Your task to perform on an android device: Open Google Maps and go to "Timeline" Image 0: 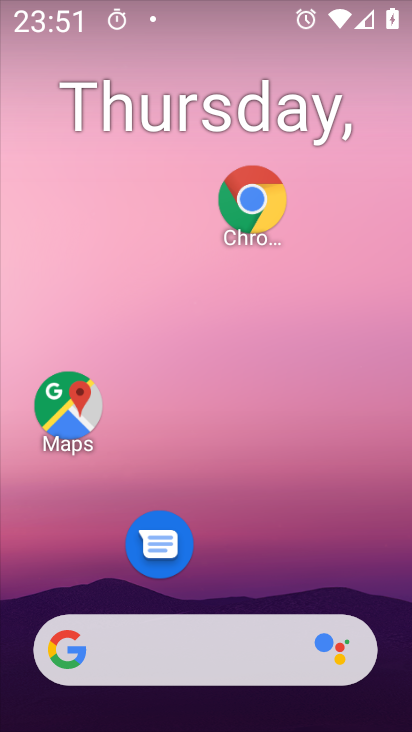
Step 0: click (71, 398)
Your task to perform on an android device: Open Google Maps and go to "Timeline" Image 1: 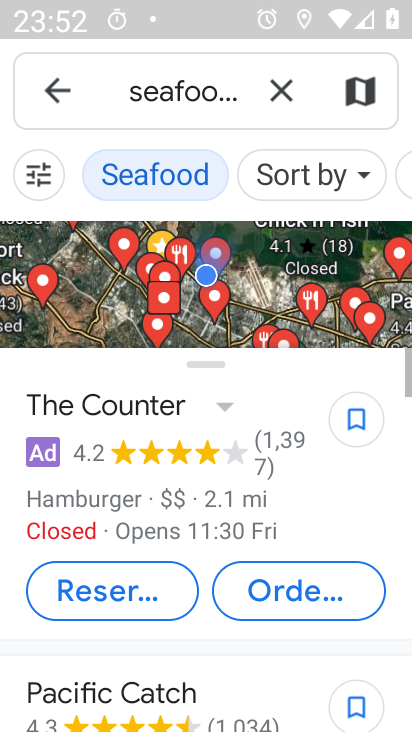
Step 1: click (57, 105)
Your task to perform on an android device: Open Google Maps and go to "Timeline" Image 2: 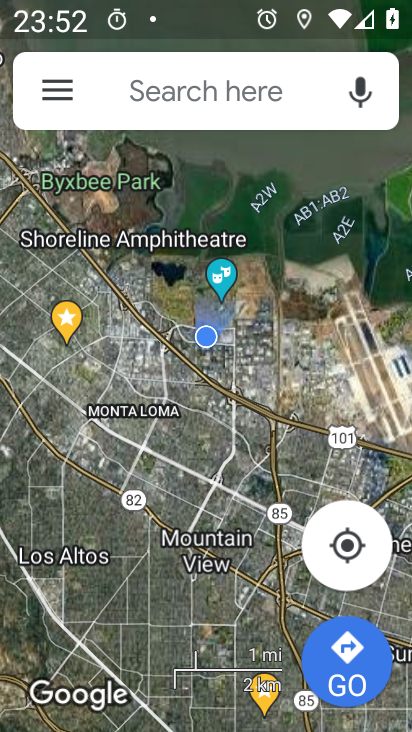
Step 2: click (57, 105)
Your task to perform on an android device: Open Google Maps and go to "Timeline" Image 3: 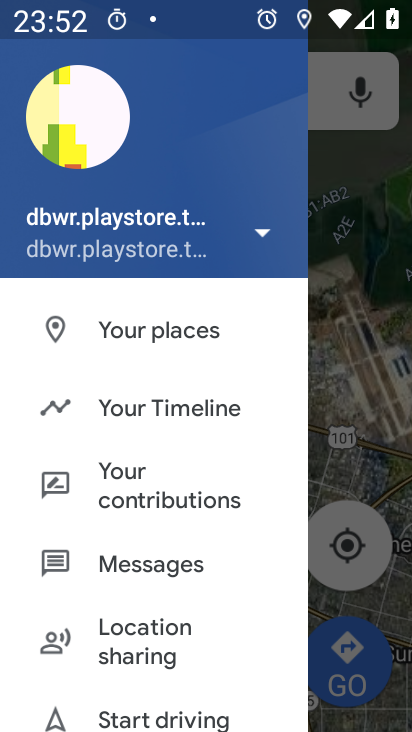
Step 3: click (148, 433)
Your task to perform on an android device: Open Google Maps and go to "Timeline" Image 4: 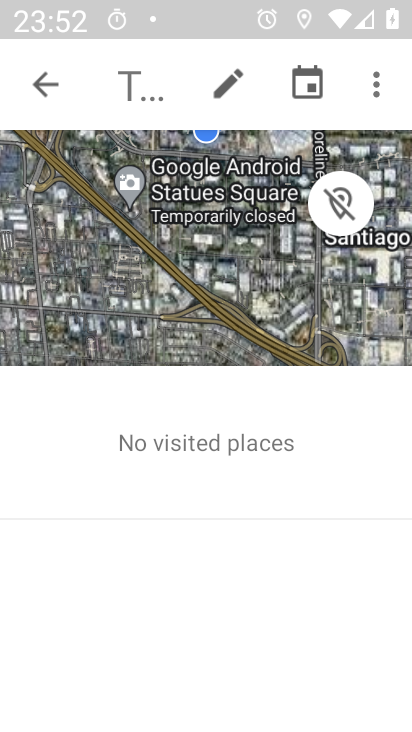
Step 4: task complete